Your task to perform on an android device: turn on the 12-hour format for clock Image 0: 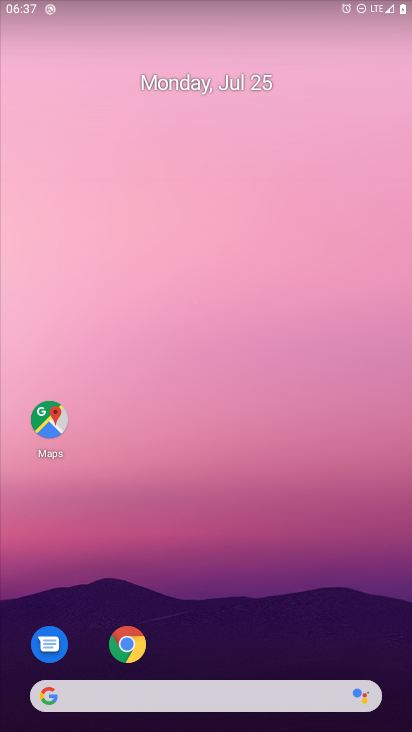
Step 0: press home button
Your task to perform on an android device: turn on the 12-hour format for clock Image 1: 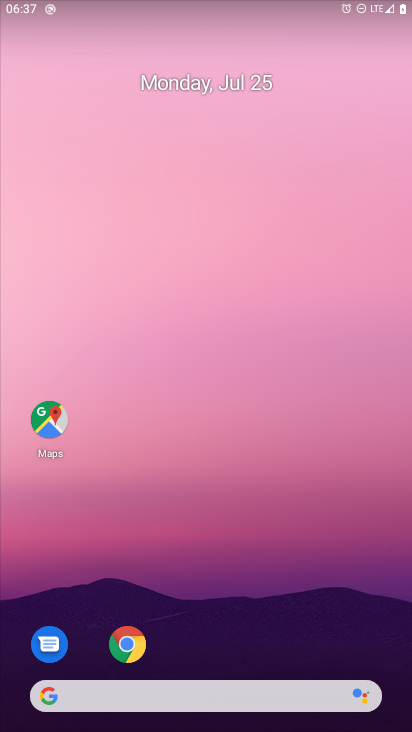
Step 1: drag from (241, 646) to (234, 77)
Your task to perform on an android device: turn on the 12-hour format for clock Image 2: 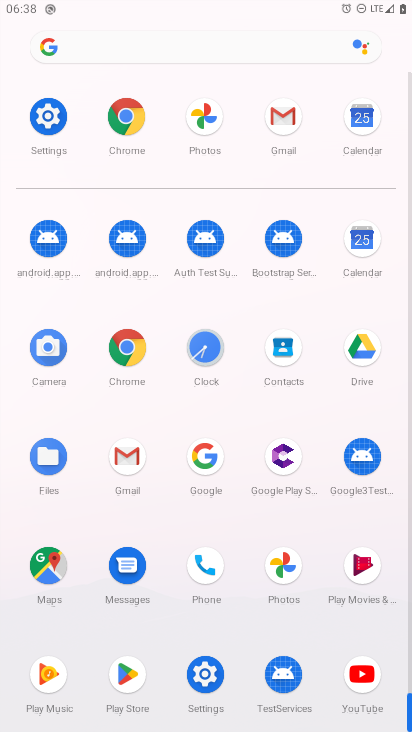
Step 2: click (52, 121)
Your task to perform on an android device: turn on the 12-hour format for clock Image 3: 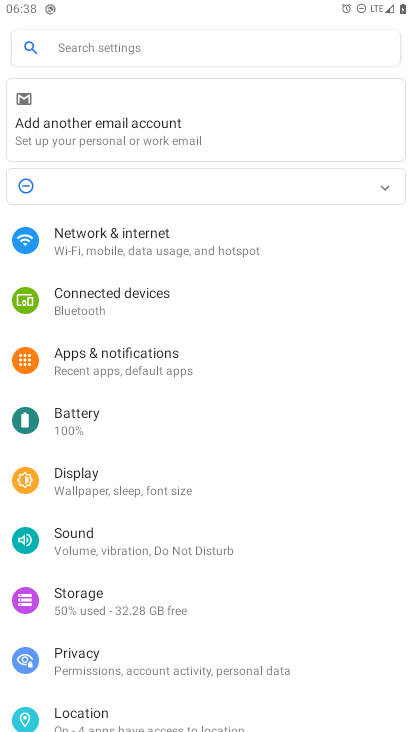
Step 3: drag from (311, 597) to (267, 51)
Your task to perform on an android device: turn on the 12-hour format for clock Image 4: 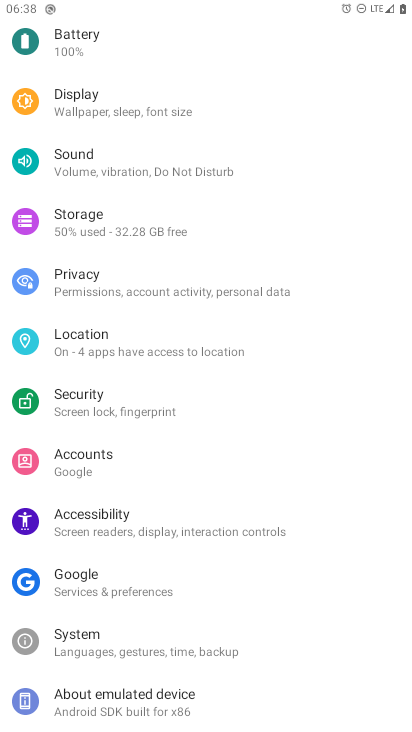
Step 4: click (77, 654)
Your task to perform on an android device: turn on the 12-hour format for clock Image 5: 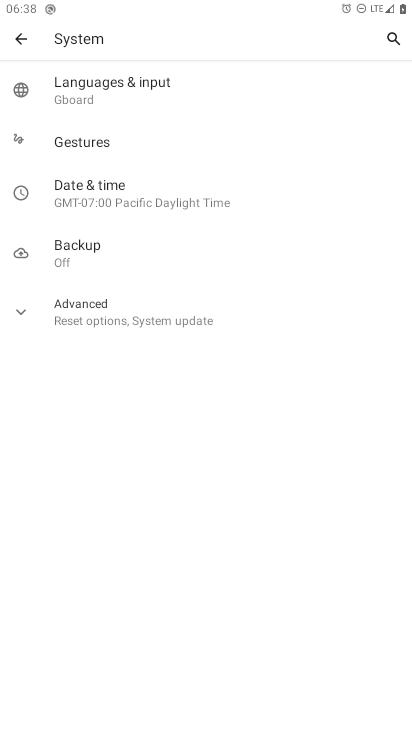
Step 5: click (92, 201)
Your task to perform on an android device: turn on the 12-hour format for clock Image 6: 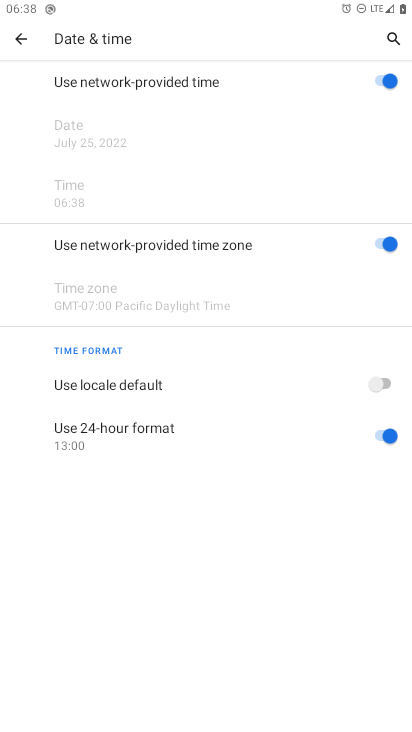
Step 6: click (390, 436)
Your task to perform on an android device: turn on the 12-hour format for clock Image 7: 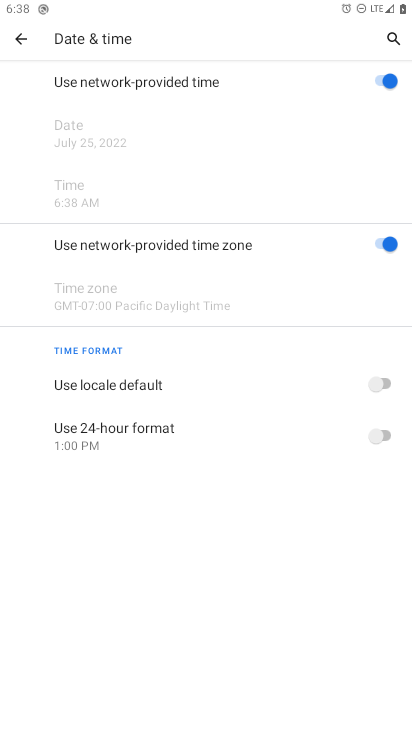
Step 7: click (377, 384)
Your task to perform on an android device: turn on the 12-hour format for clock Image 8: 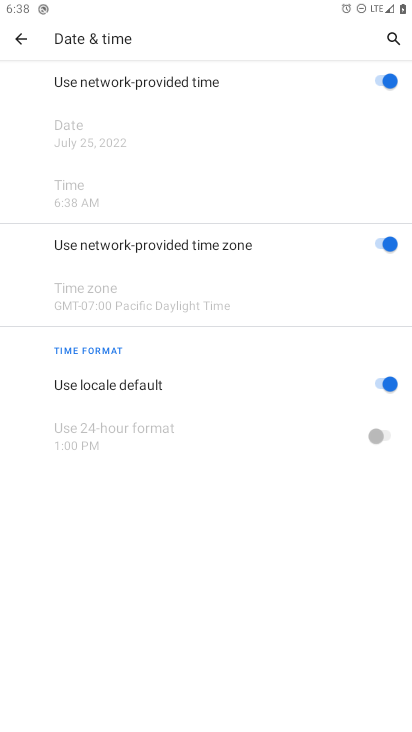
Step 8: task complete